Your task to perform on an android device: Open maps Image 0: 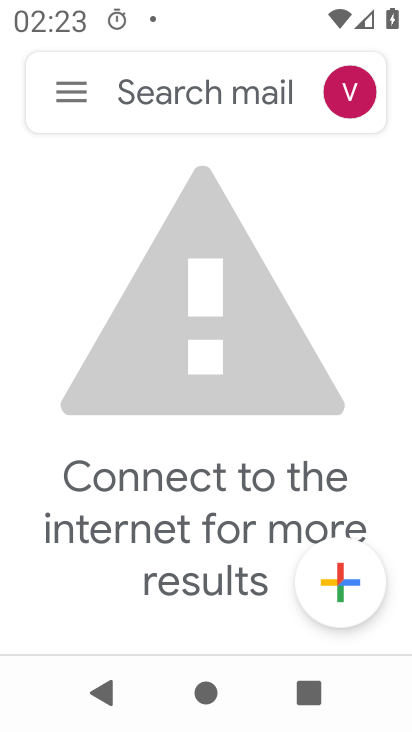
Step 0: press home button
Your task to perform on an android device: Open maps Image 1: 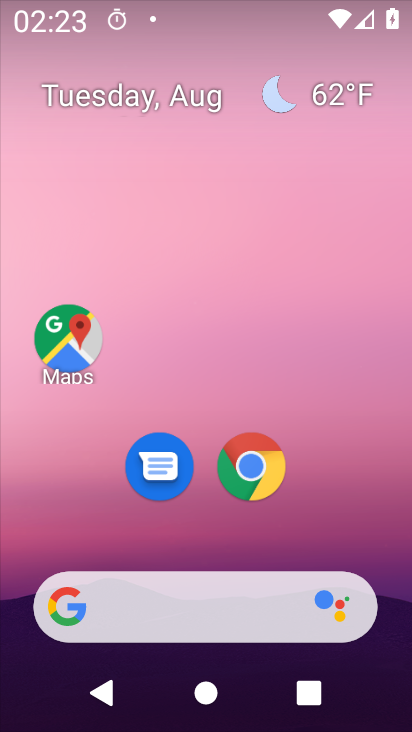
Step 1: drag from (351, 534) to (341, 125)
Your task to perform on an android device: Open maps Image 2: 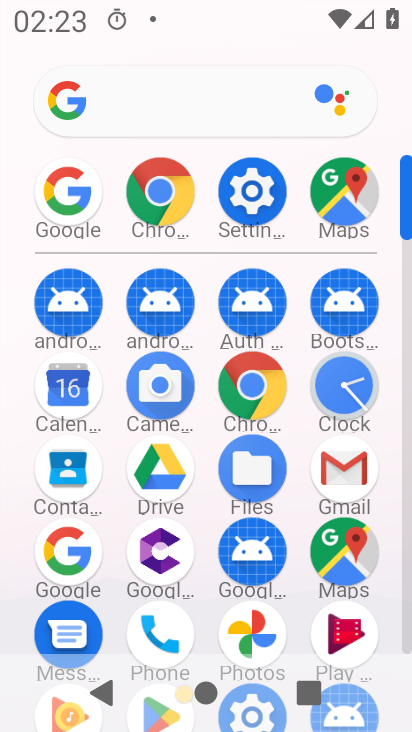
Step 2: click (348, 199)
Your task to perform on an android device: Open maps Image 3: 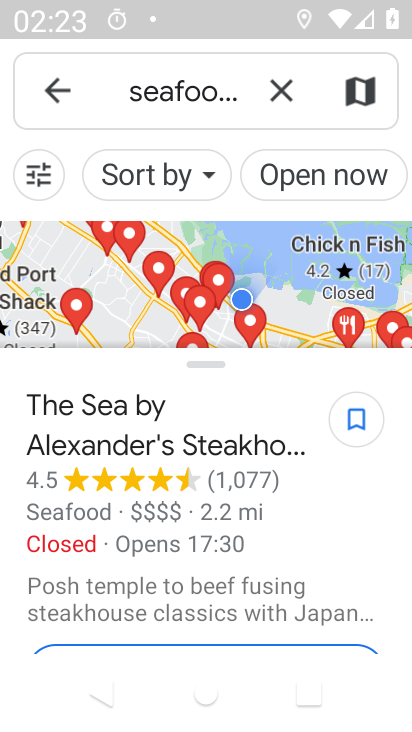
Step 3: task complete